Your task to perform on an android device: turn on the 24-hour format for clock Image 0: 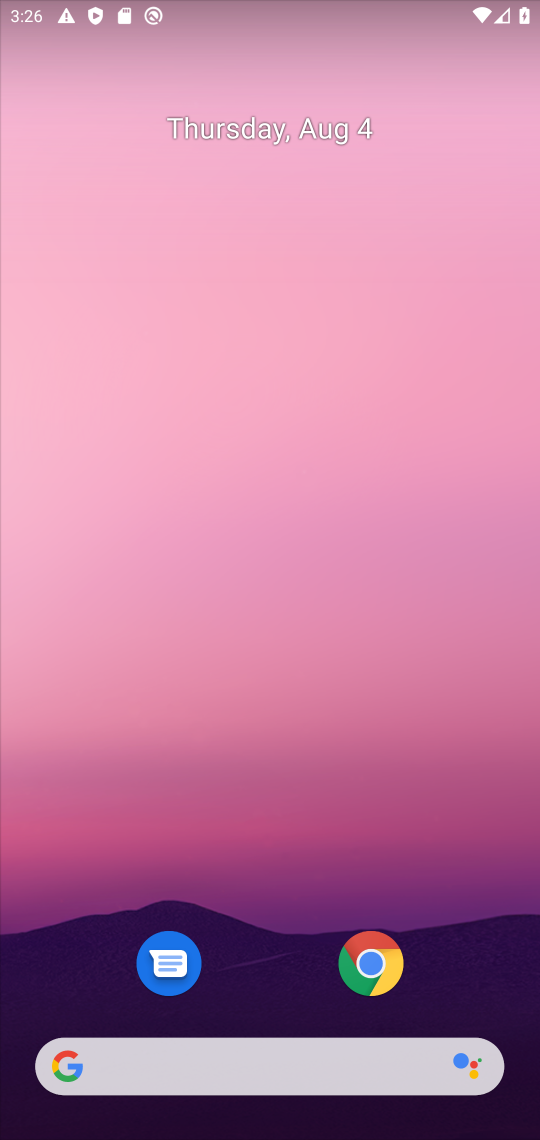
Step 0: drag from (278, 963) to (313, 136)
Your task to perform on an android device: turn on the 24-hour format for clock Image 1: 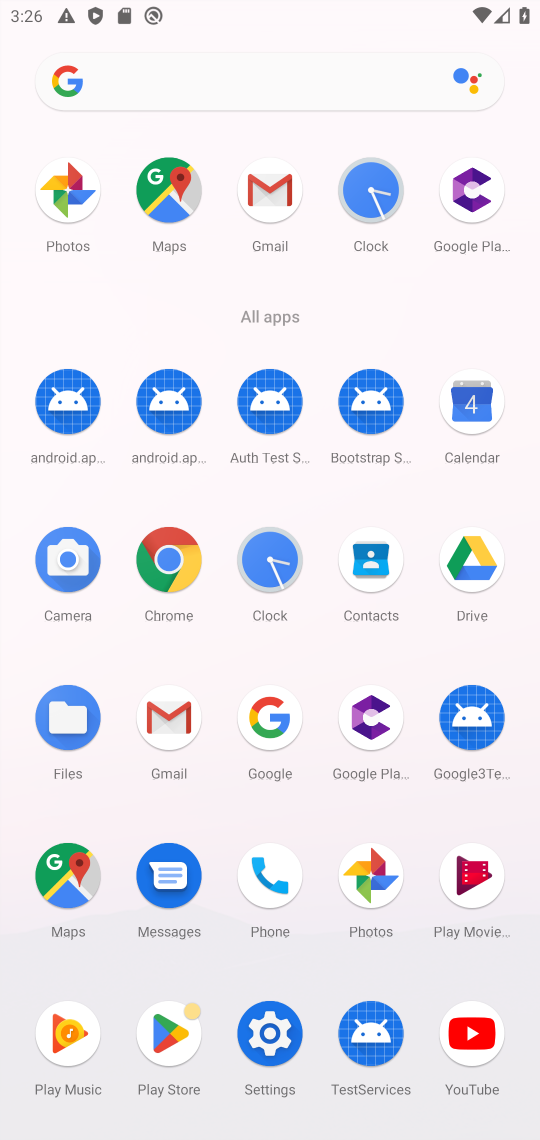
Step 1: click (369, 200)
Your task to perform on an android device: turn on the 24-hour format for clock Image 2: 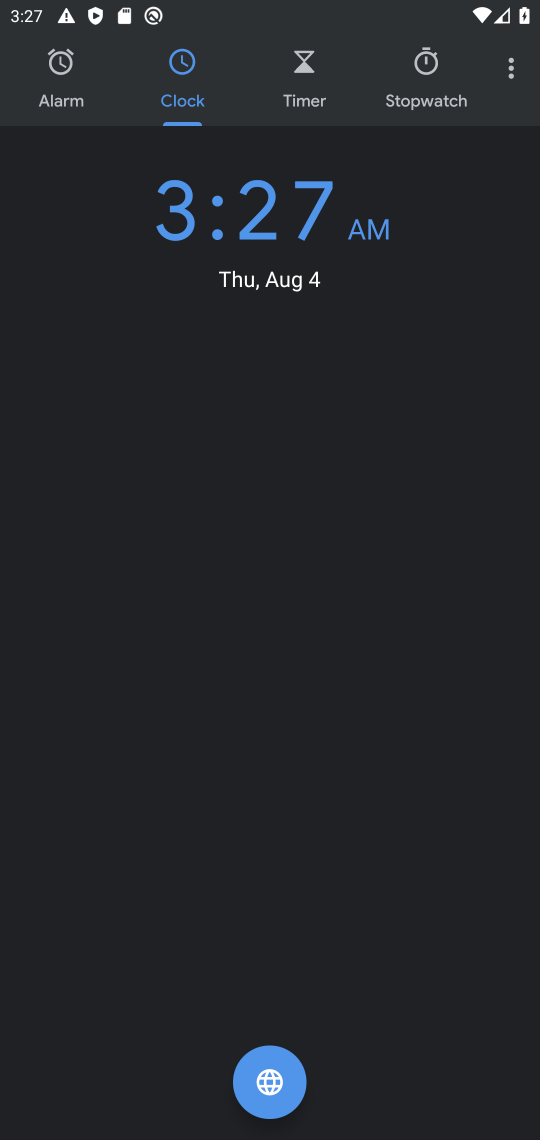
Step 2: click (499, 71)
Your task to perform on an android device: turn on the 24-hour format for clock Image 3: 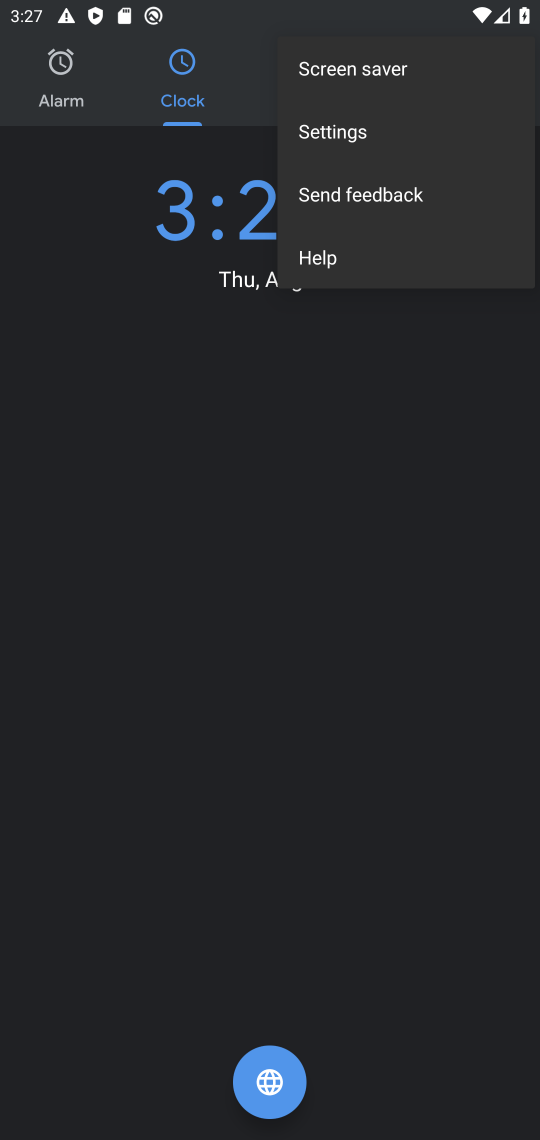
Step 3: click (375, 143)
Your task to perform on an android device: turn on the 24-hour format for clock Image 4: 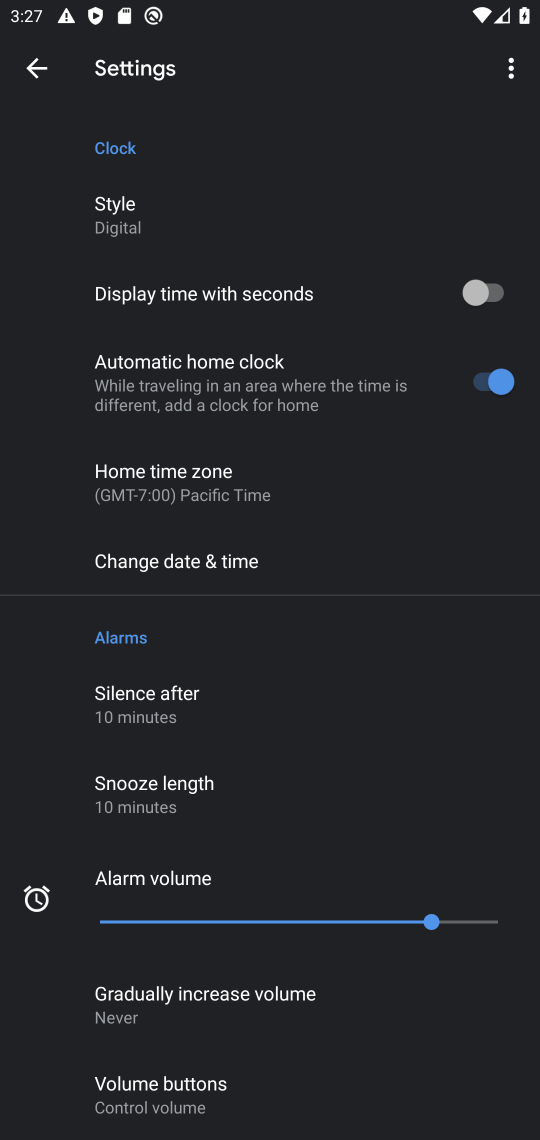
Step 4: click (210, 568)
Your task to perform on an android device: turn on the 24-hour format for clock Image 5: 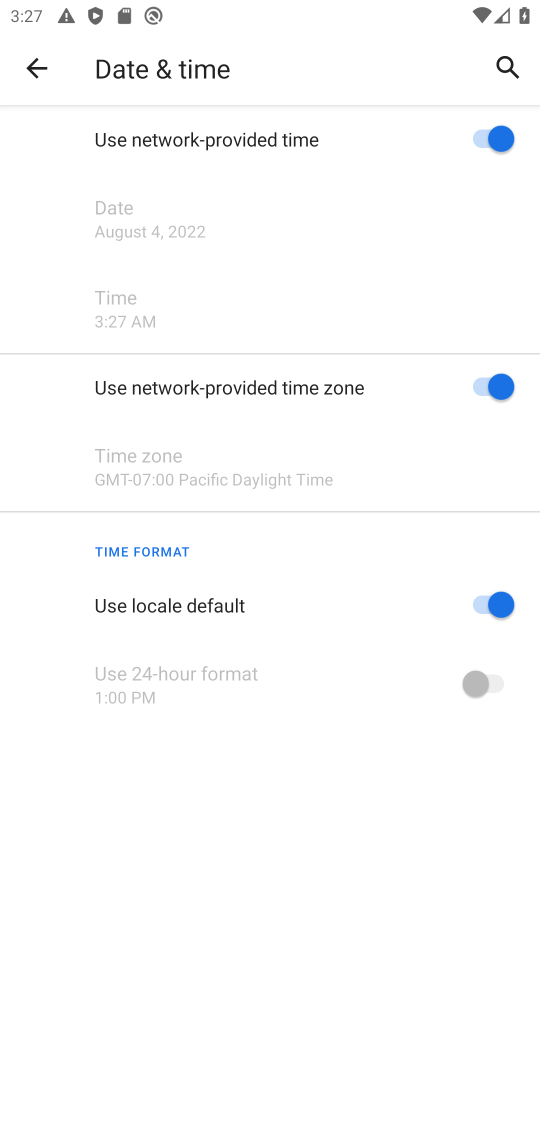
Step 5: click (487, 607)
Your task to perform on an android device: turn on the 24-hour format for clock Image 6: 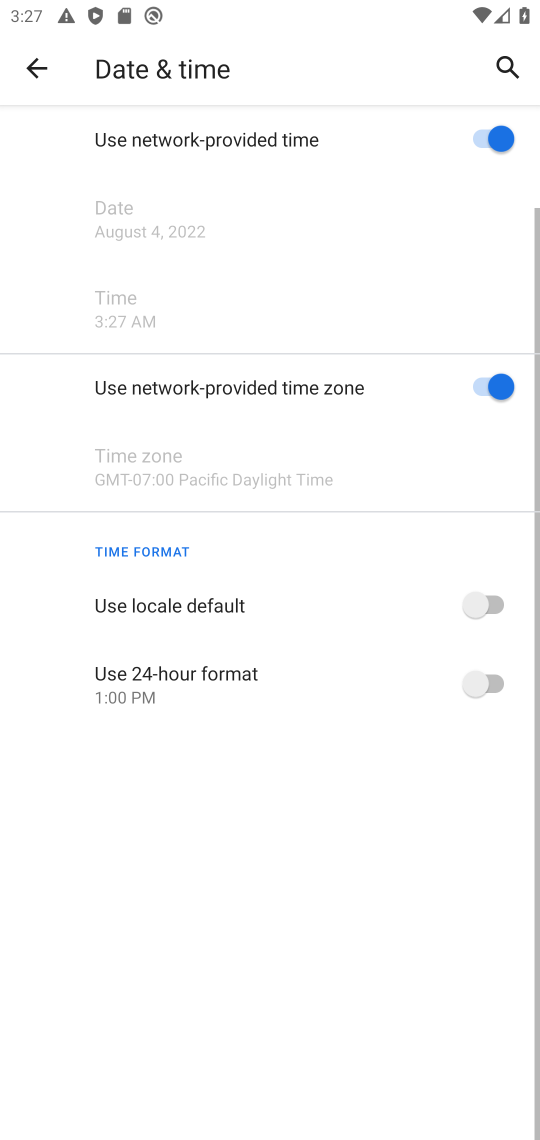
Step 6: click (483, 678)
Your task to perform on an android device: turn on the 24-hour format for clock Image 7: 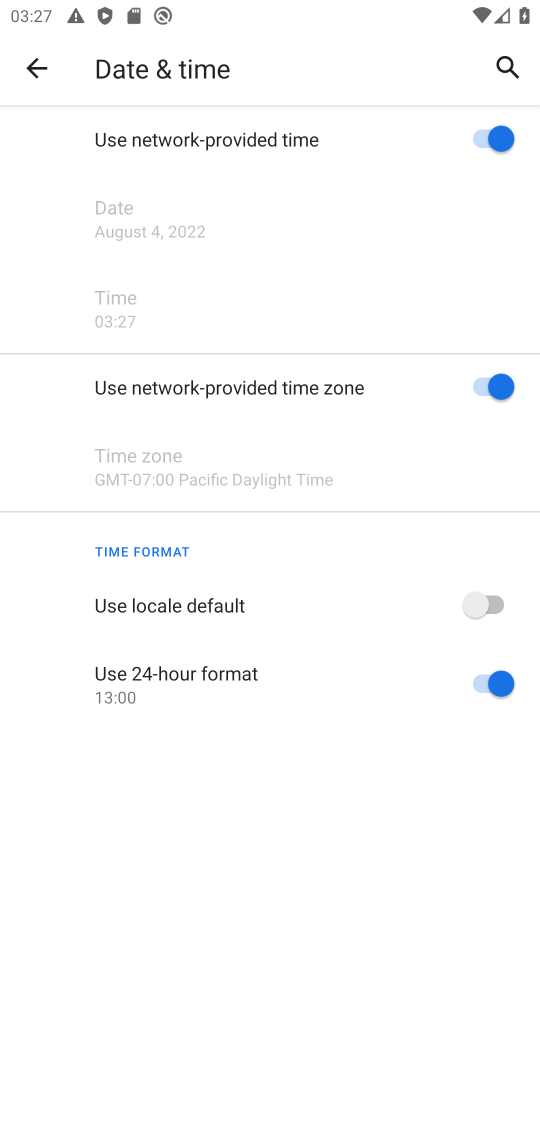
Step 7: task complete